Your task to perform on an android device: change the clock display to analog Image 0: 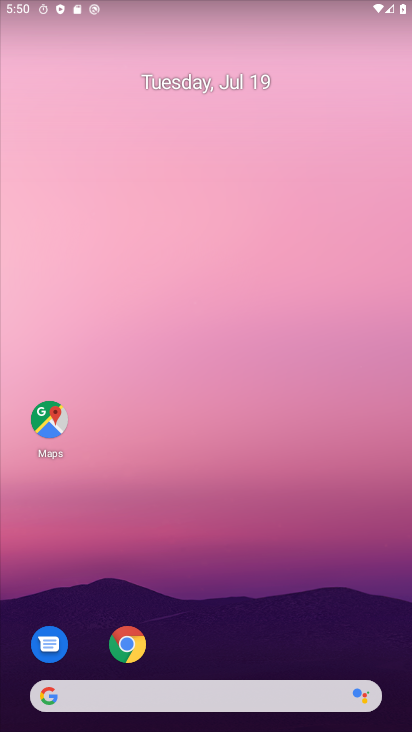
Step 0: drag from (244, 613) to (268, 279)
Your task to perform on an android device: change the clock display to analog Image 1: 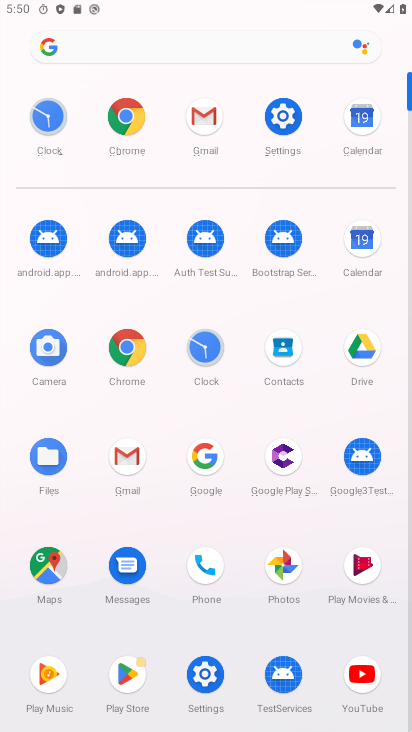
Step 1: click (208, 348)
Your task to perform on an android device: change the clock display to analog Image 2: 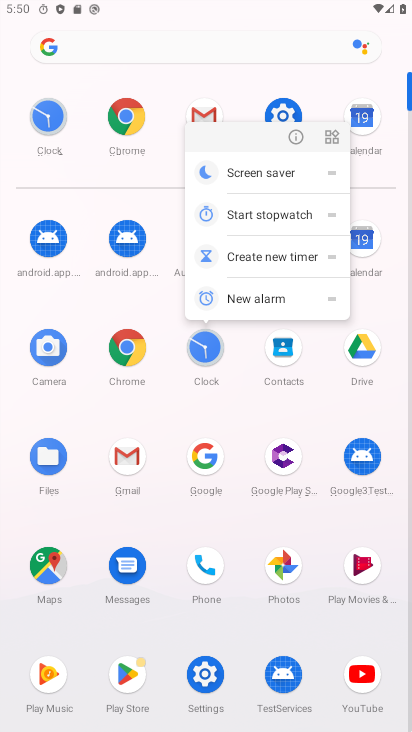
Step 2: click (208, 348)
Your task to perform on an android device: change the clock display to analog Image 3: 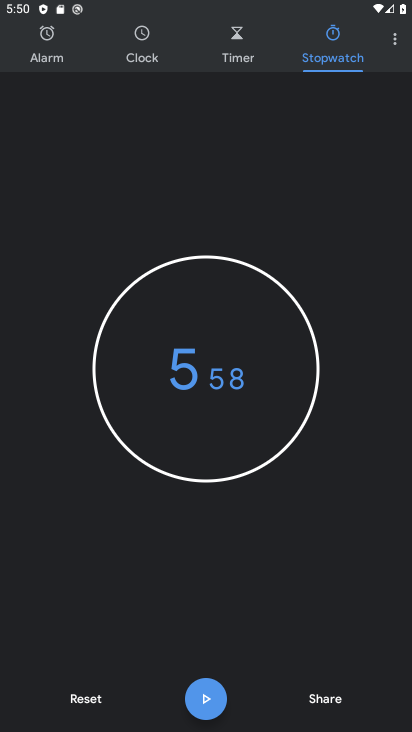
Step 3: click (395, 40)
Your task to perform on an android device: change the clock display to analog Image 4: 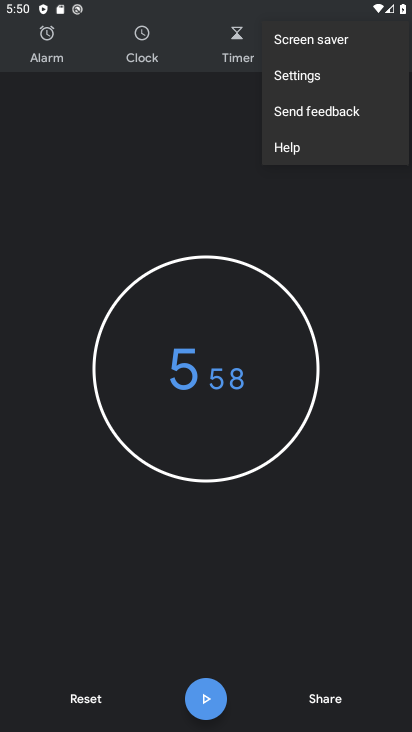
Step 4: click (297, 77)
Your task to perform on an android device: change the clock display to analog Image 5: 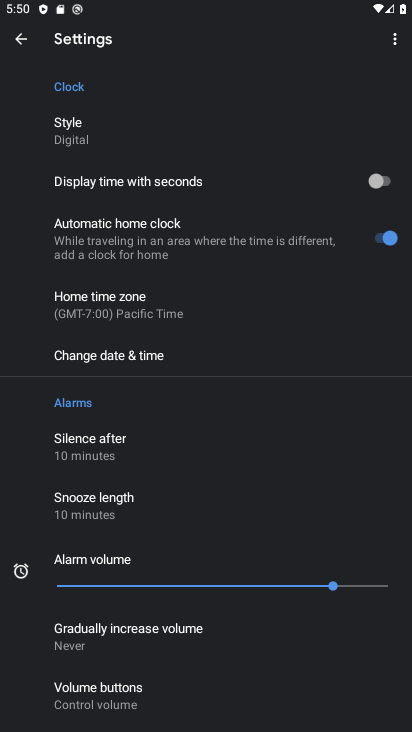
Step 5: click (81, 127)
Your task to perform on an android device: change the clock display to analog Image 6: 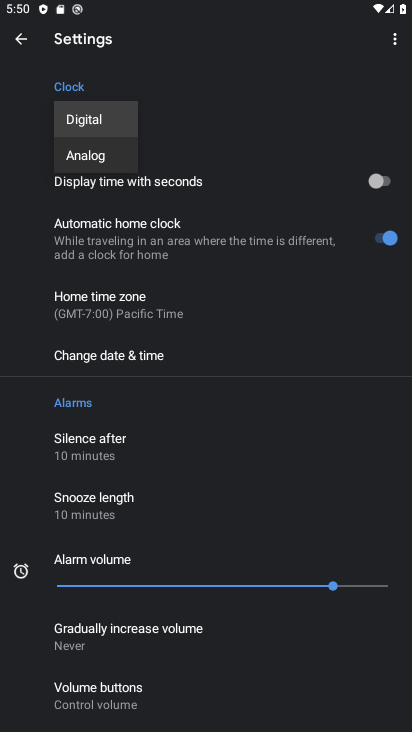
Step 6: click (96, 161)
Your task to perform on an android device: change the clock display to analog Image 7: 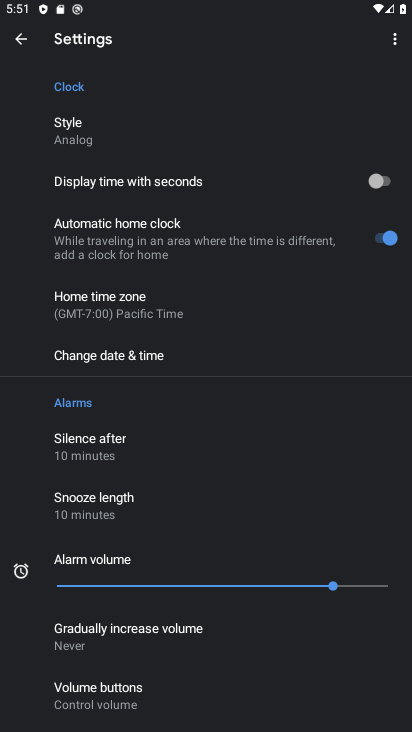
Step 7: task complete